Your task to perform on an android device: open a new tab in the chrome app Image 0: 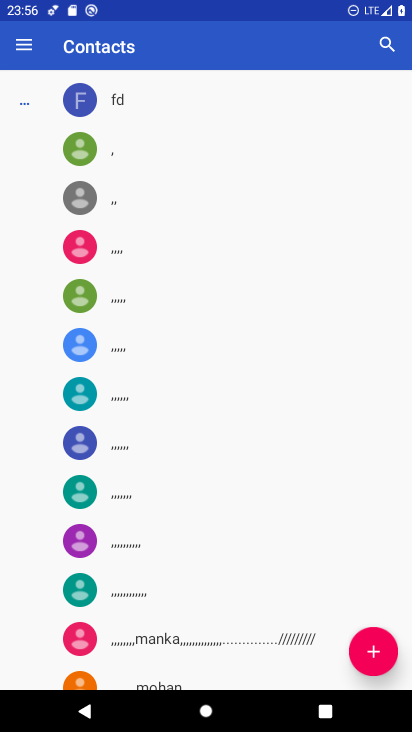
Step 0: press home button
Your task to perform on an android device: open a new tab in the chrome app Image 1: 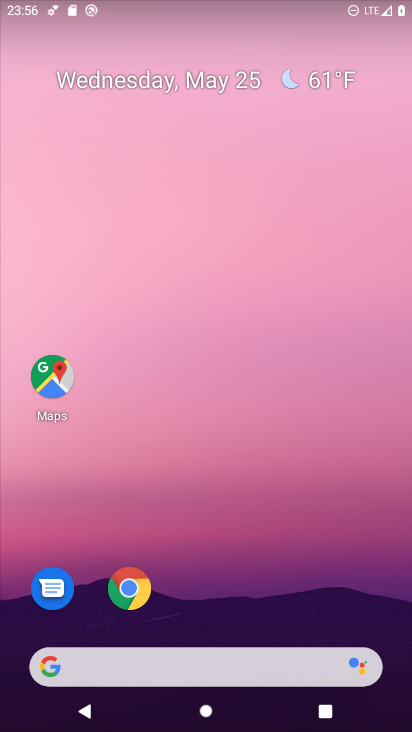
Step 1: click (134, 590)
Your task to perform on an android device: open a new tab in the chrome app Image 2: 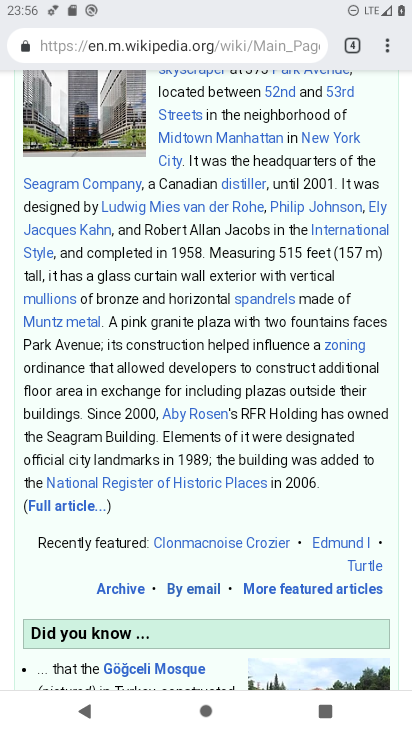
Step 2: click (383, 44)
Your task to perform on an android device: open a new tab in the chrome app Image 3: 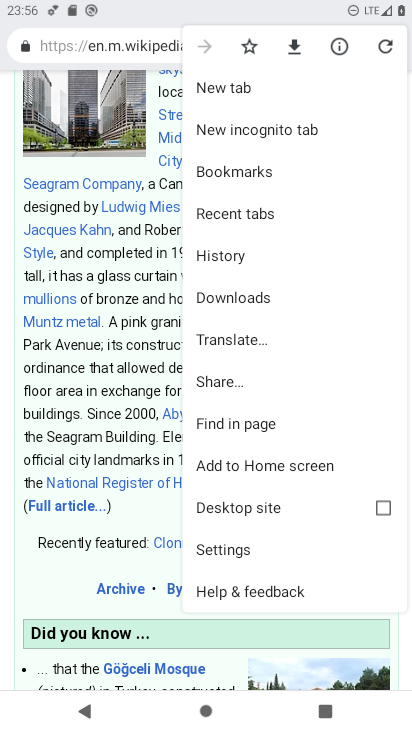
Step 3: click (215, 87)
Your task to perform on an android device: open a new tab in the chrome app Image 4: 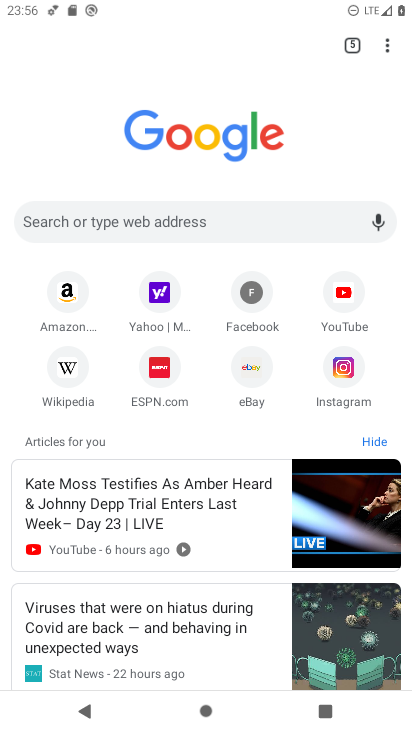
Step 4: task complete